Your task to perform on an android device: Go to ESPN.com Image 0: 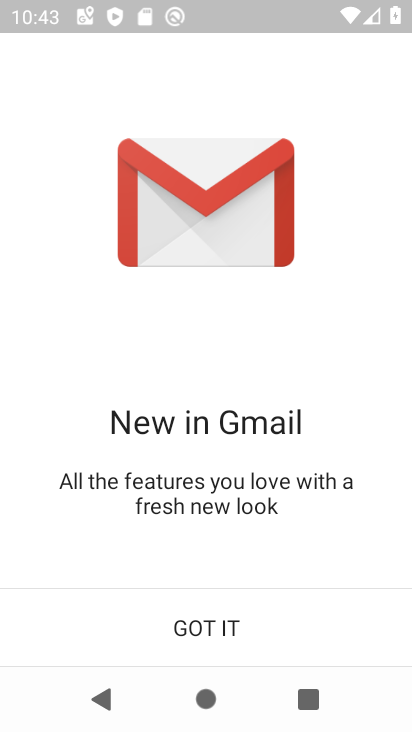
Step 0: press home button
Your task to perform on an android device: Go to ESPN.com Image 1: 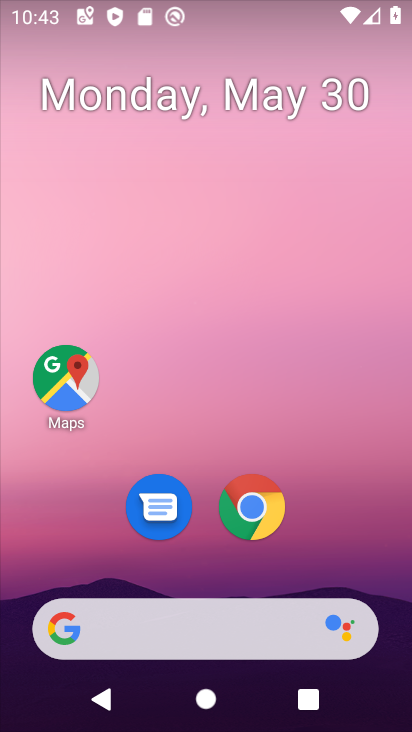
Step 1: drag from (395, 618) to (249, 27)
Your task to perform on an android device: Go to ESPN.com Image 2: 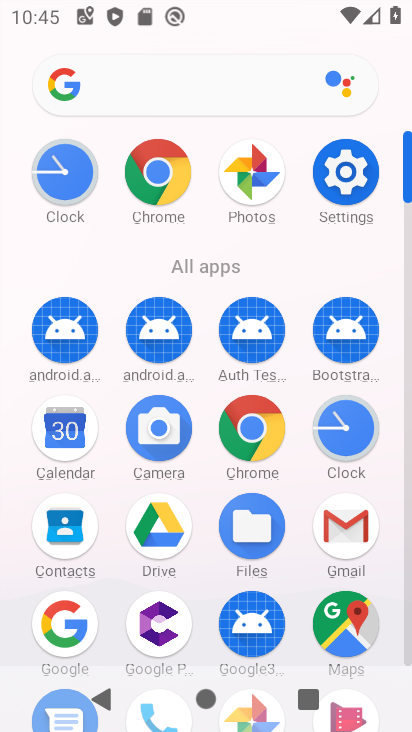
Step 2: click (71, 620)
Your task to perform on an android device: Go to ESPN.com Image 3: 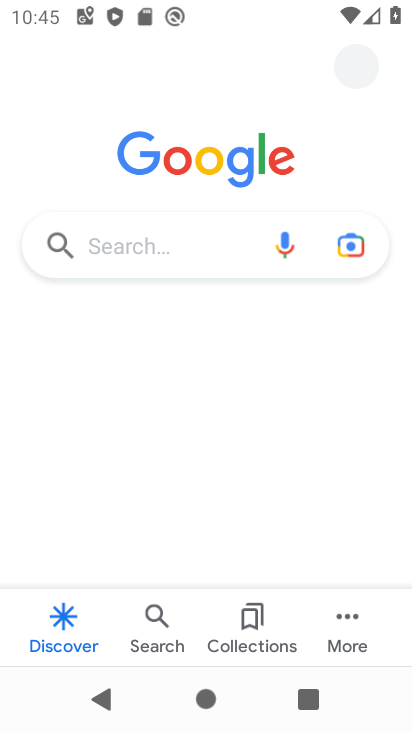
Step 3: click (176, 242)
Your task to perform on an android device: Go to ESPN.com Image 4: 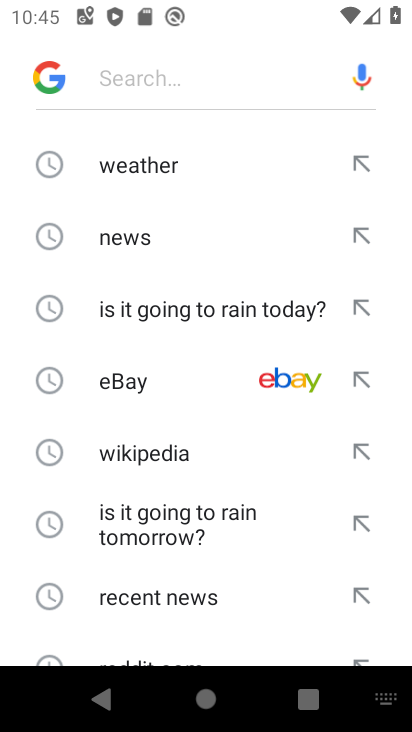
Step 4: drag from (156, 545) to (221, 204)
Your task to perform on an android device: Go to ESPN.com Image 5: 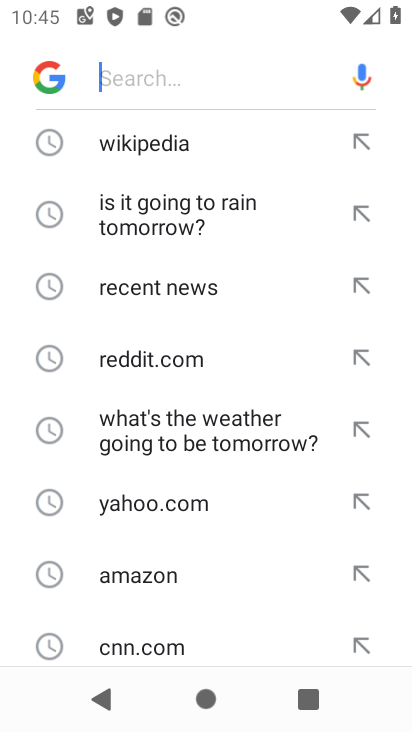
Step 5: drag from (219, 410) to (203, 229)
Your task to perform on an android device: Go to ESPN.com Image 6: 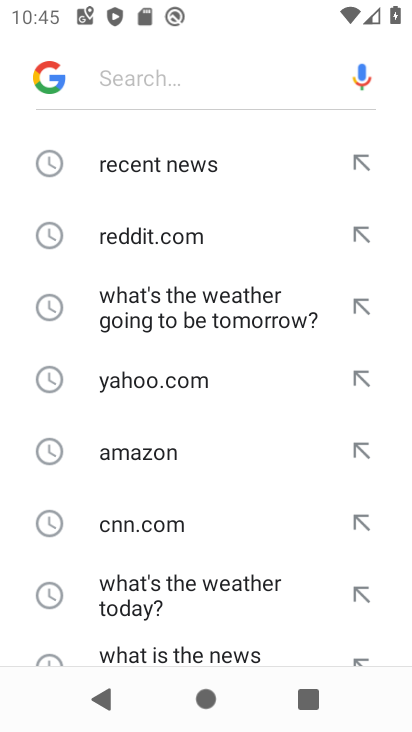
Step 6: drag from (138, 599) to (192, 174)
Your task to perform on an android device: Go to ESPN.com Image 7: 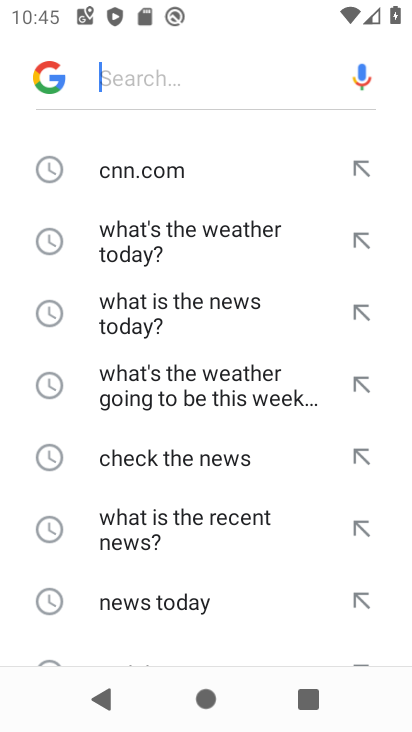
Step 7: drag from (173, 611) to (213, 193)
Your task to perform on an android device: Go to ESPN.com Image 8: 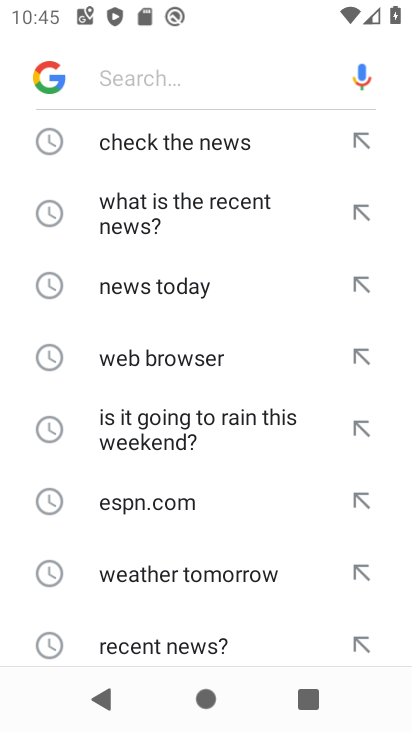
Step 8: drag from (146, 631) to (192, 151)
Your task to perform on an android device: Go to ESPN.com Image 9: 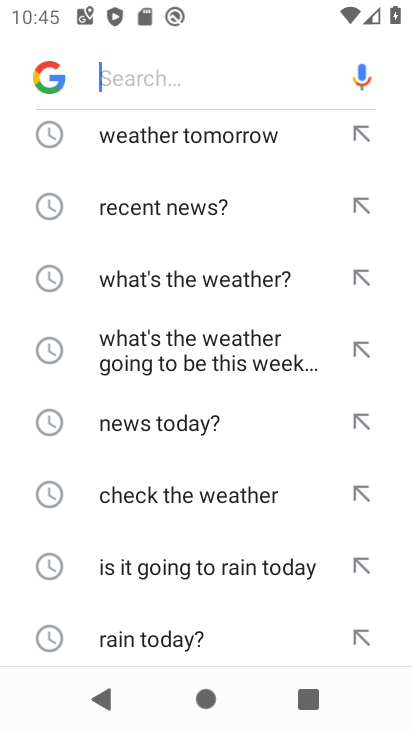
Step 9: drag from (172, 607) to (192, 144)
Your task to perform on an android device: Go to ESPN.com Image 10: 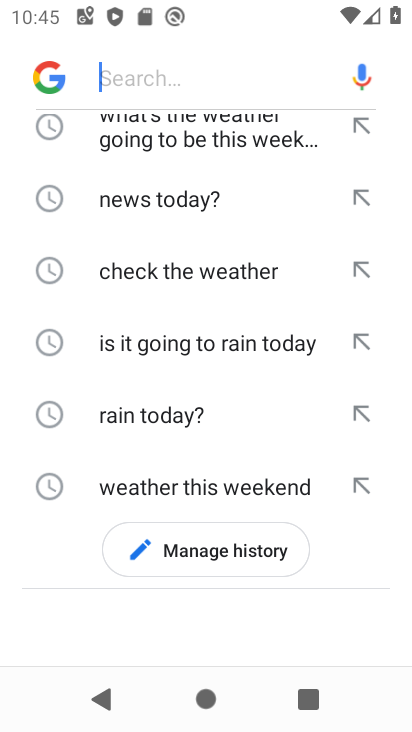
Step 10: type "espn.com"
Your task to perform on an android device: Go to ESPN.com Image 11: 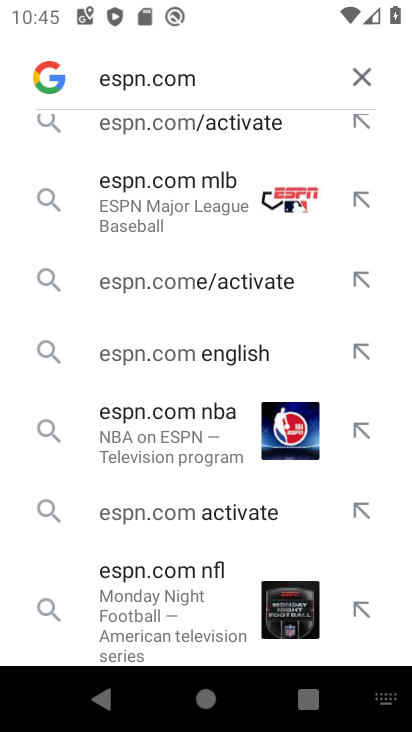
Step 11: click (155, 140)
Your task to perform on an android device: Go to ESPN.com Image 12: 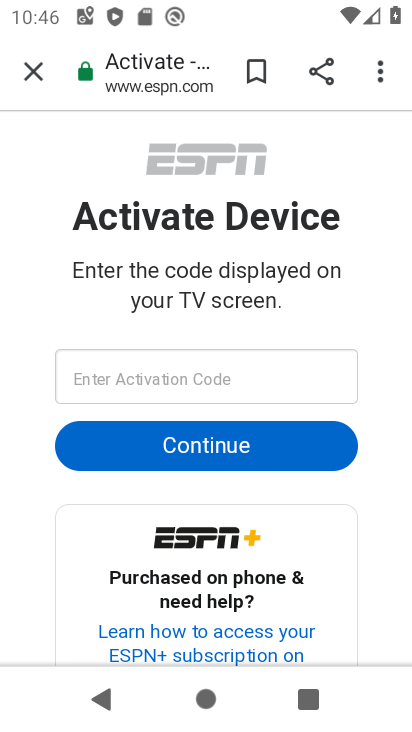
Step 12: task complete